Your task to perform on an android device: Open the phone app and click the voicemail tab. Image 0: 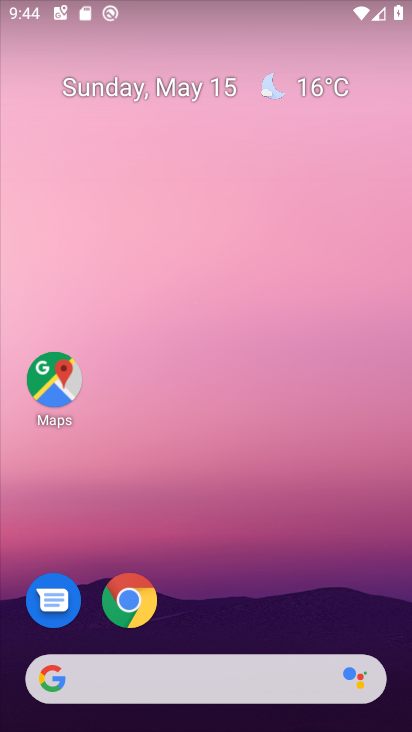
Step 0: drag from (217, 647) to (127, 118)
Your task to perform on an android device: Open the phone app and click the voicemail tab. Image 1: 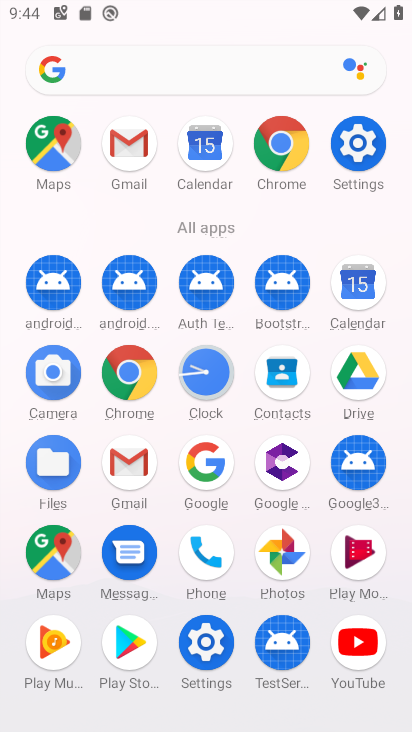
Step 1: click (207, 571)
Your task to perform on an android device: Open the phone app and click the voicemail tab. Image 2: 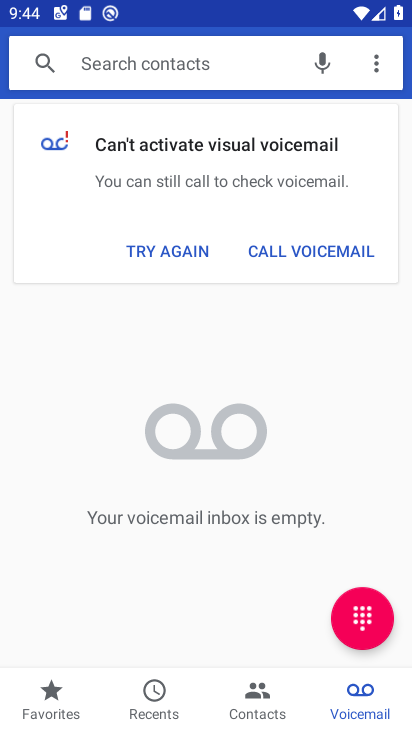
Step 2: click (342, 709)
Your task to perform on an android device: Open the phone app and click the voicemail tab. Image 3: 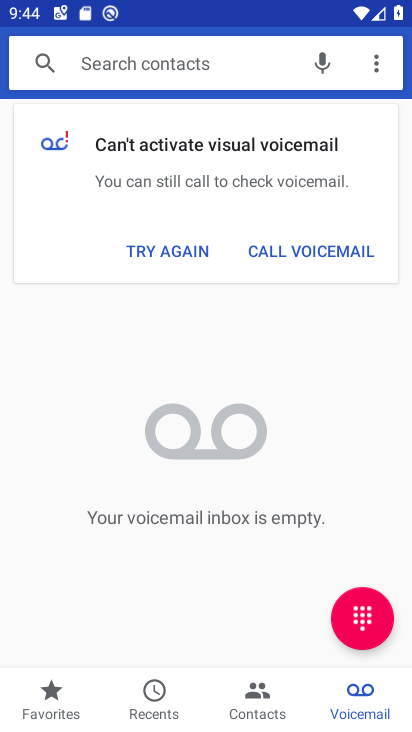
Step 3: task complete